Your task to perform on an android device: open chrome and create a bookmark for the current page Image 0: 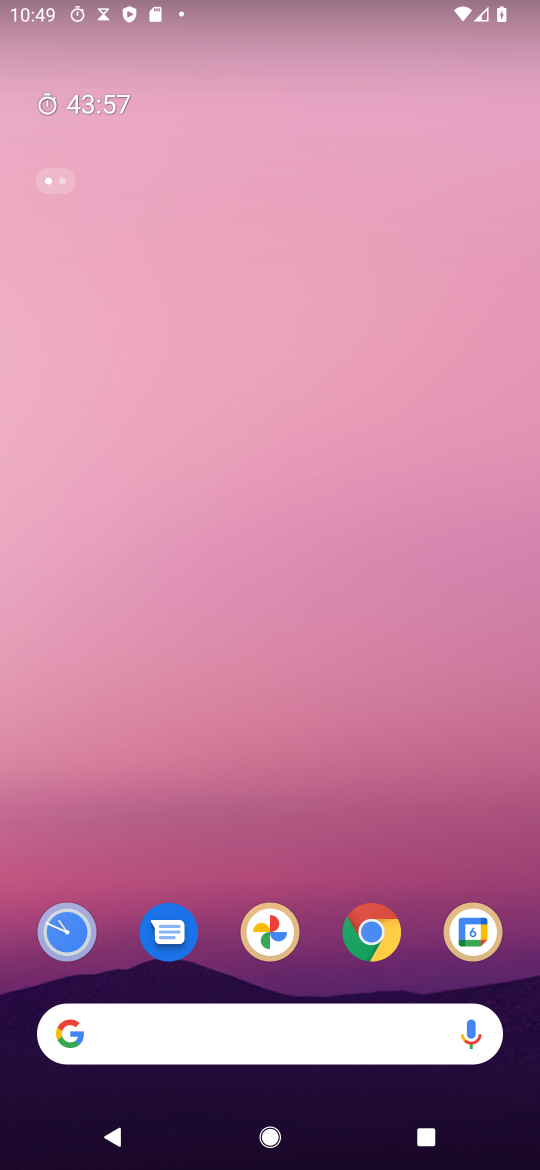
Step 0: drag from (290, 809) to (370, 22)
Your task to perform on an android device: open chrome and create a bookmark for the current page Image 1: 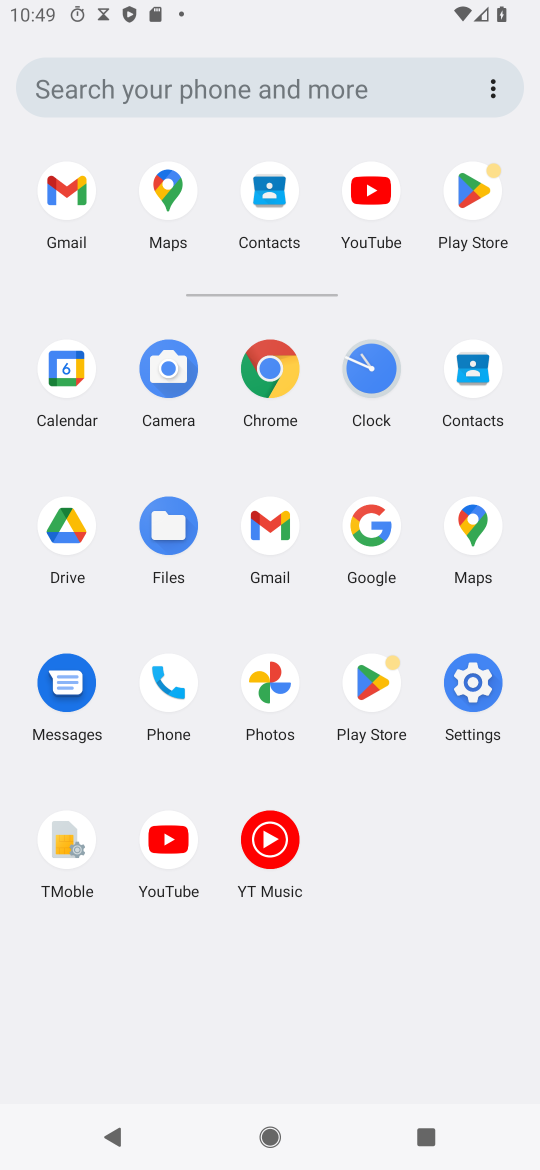
Step 1: click (272, 374)
Your task to perform on an android device: open chrome and create a bookmark for the current page Image 2: 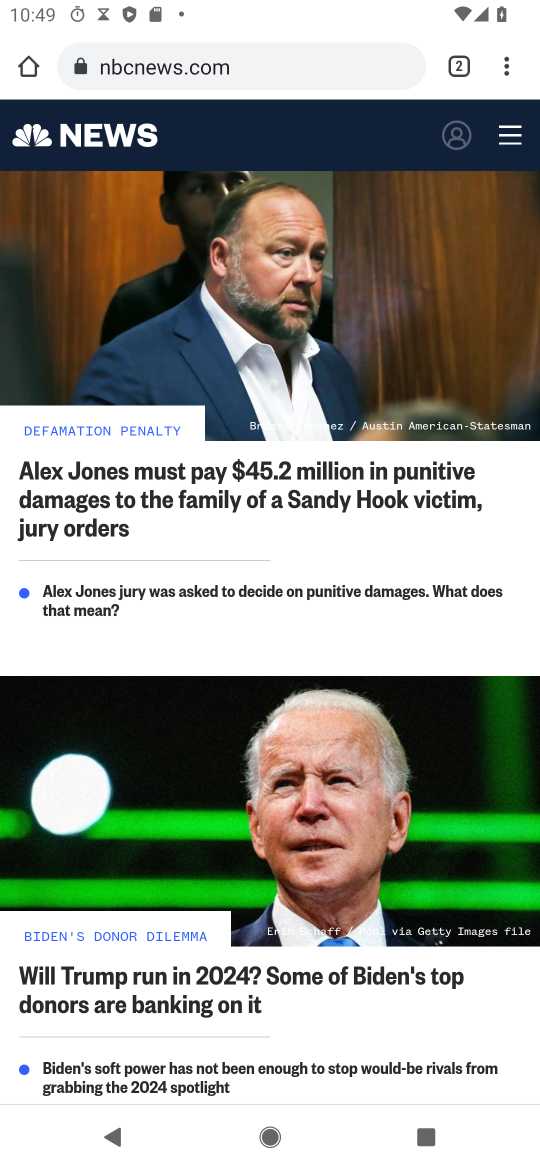
Step 2: click (526, 69)
Your task to perform on an android device: open chrome and create a bookmark for the current page Image 3: 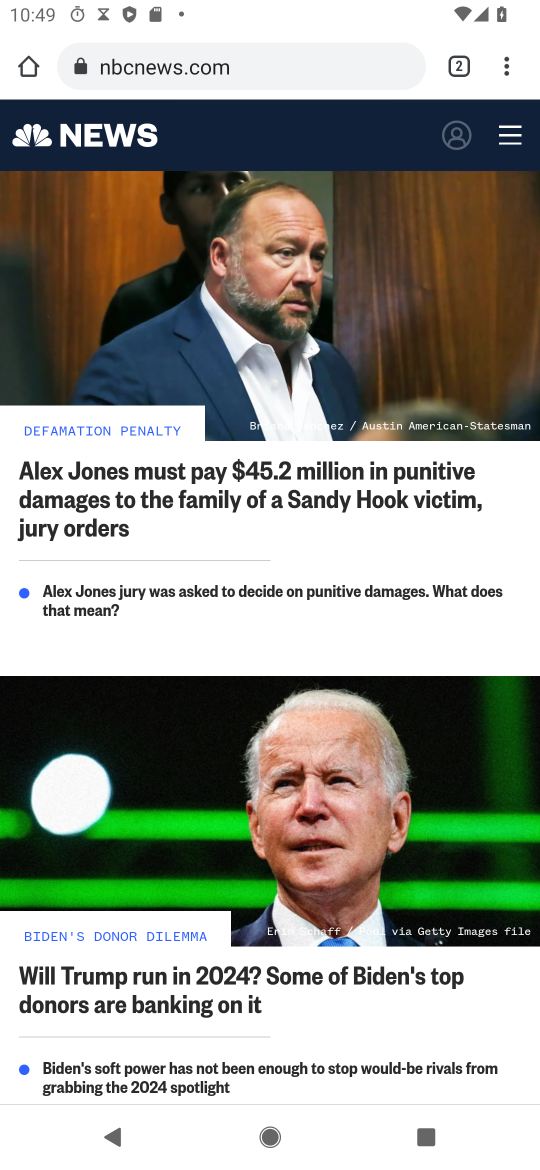
Step 3: click (512, 71)
Your task to perform on an android device: open chrome and create a bookmark for the current page Image 4: 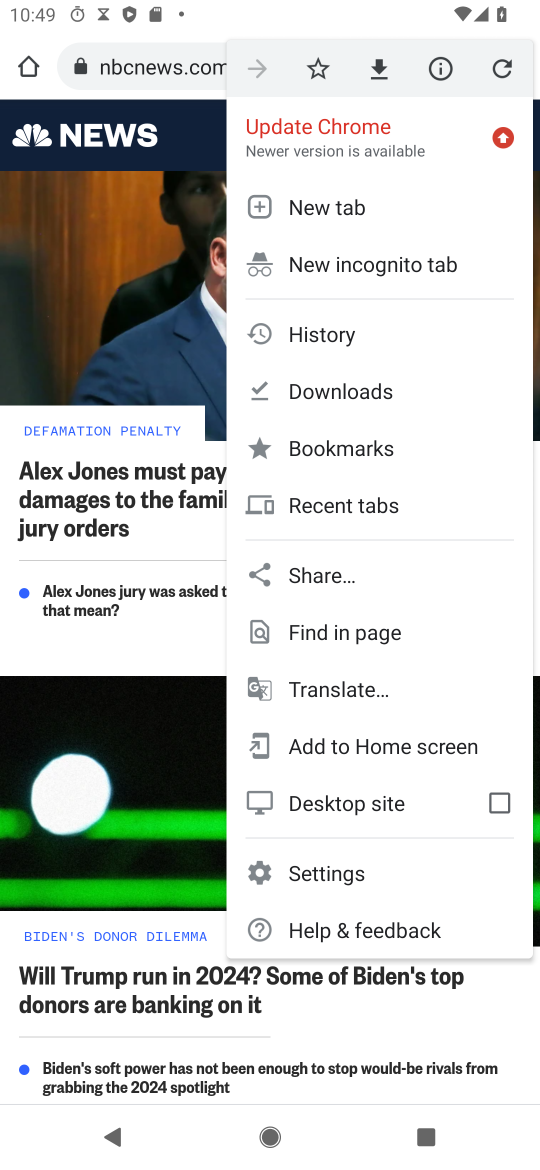
Step 4: click (310, 70)
Your task to perform on an android device: open chrome and create a bookmark for the current page Image 5: 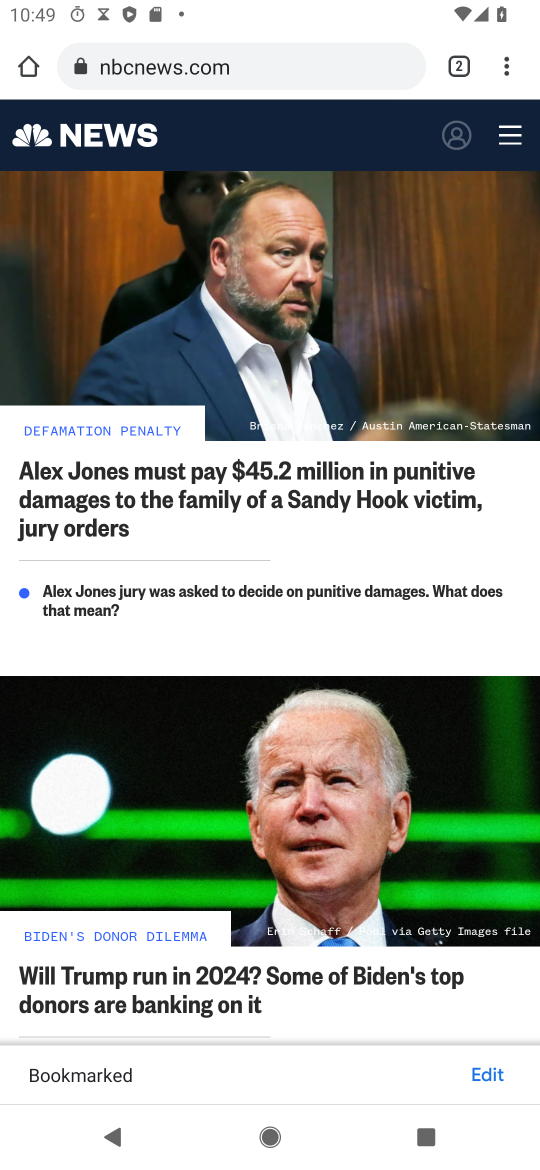
Step 5: task complete